Your task to perform on an android device: Show me productivity apps on the Play Store Image 0: 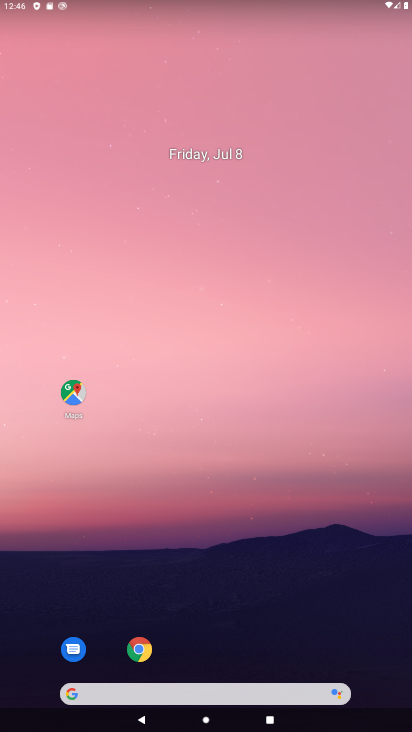
Step 0: drag from (14, 716) to (270, 139)
Your task to perform on an android device: Show me productivity apps on the Play Store Image 1: 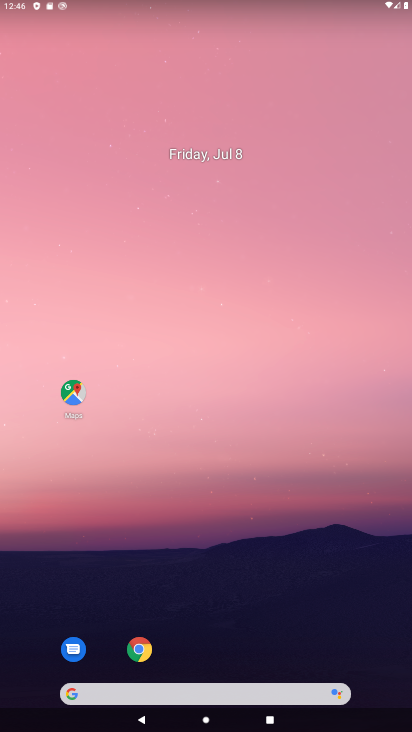
Step 1: drag from (26, 711) to (361, 132)
Your task to perform on an android device: Show me productivity apps on the Play Store Image 2: 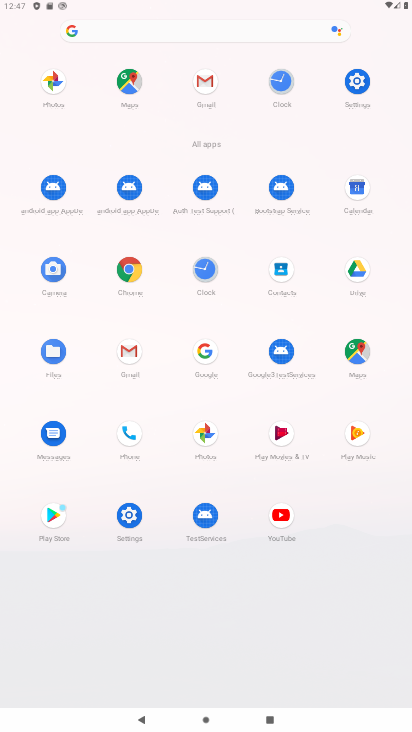
Step 2: click (47, 524)
Your task to perform on an android device: Show me productivity apps on the Play Store Image 3: 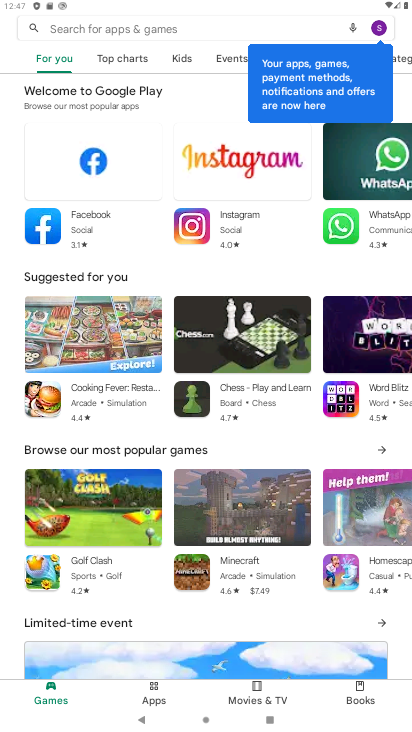
Step 3: click (70, 26)
Your task to perform on an android device: Show me productivity apps on the Play Store Image 4: 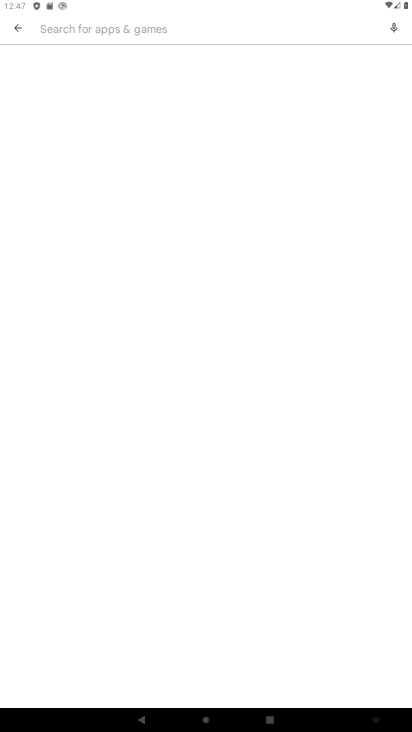
Step 4: click (15, 23)
Your task to perform on an android device: Show me productivity apps on the Play Store Image 5: 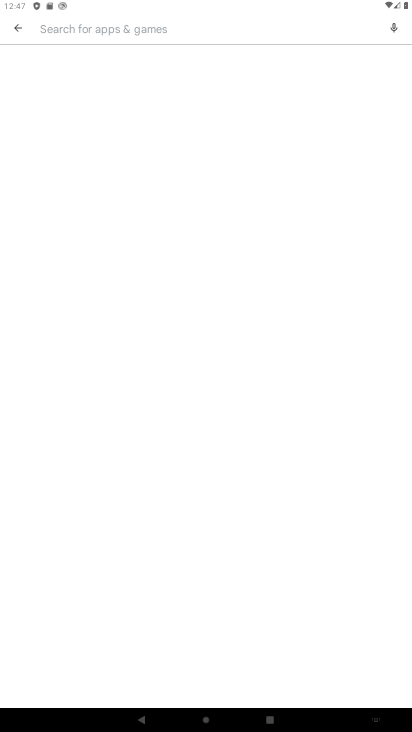
Step 5: click (18, 30)
Your task to perform on an android device: Show me productivity apps on the Play Store Image 6: 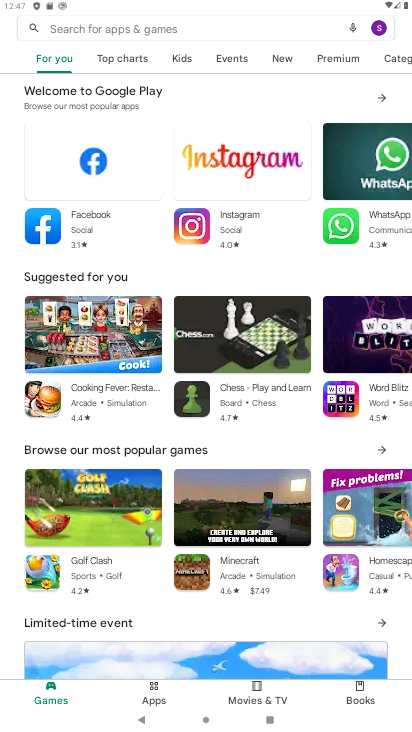
Step 6: click (123, 24)
Your task to perform on an android device: Show me productivity apps on the Play Store Image 7: 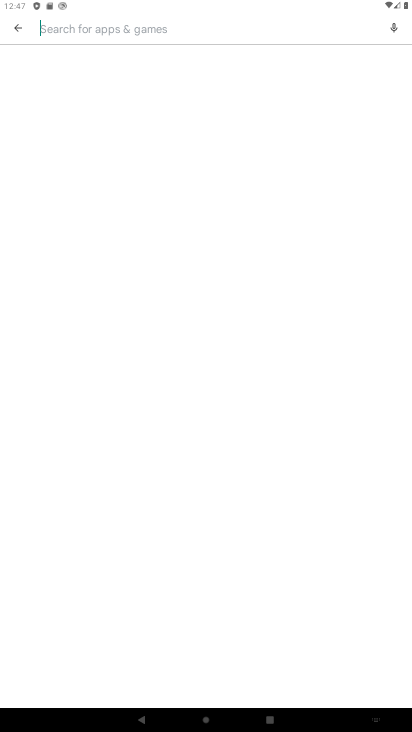
Step 7: type "productivity apps"
Your task to perform on an android device: Show me productivity apps on the Play Store Image 8: 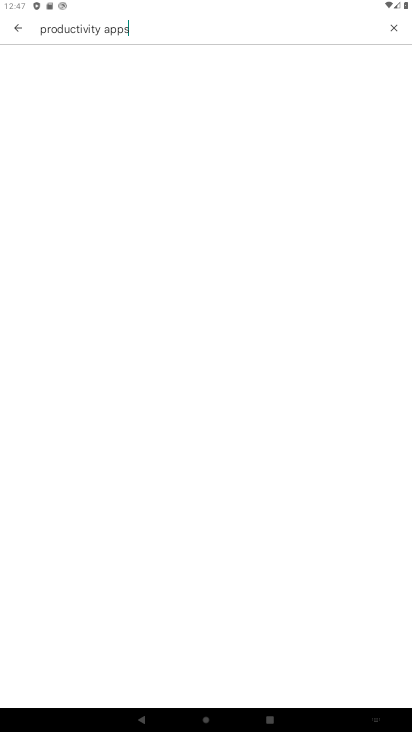
Step 8: type ""
Your task to perform on an android device: Show me productivity apps on the Play Store Image 9: 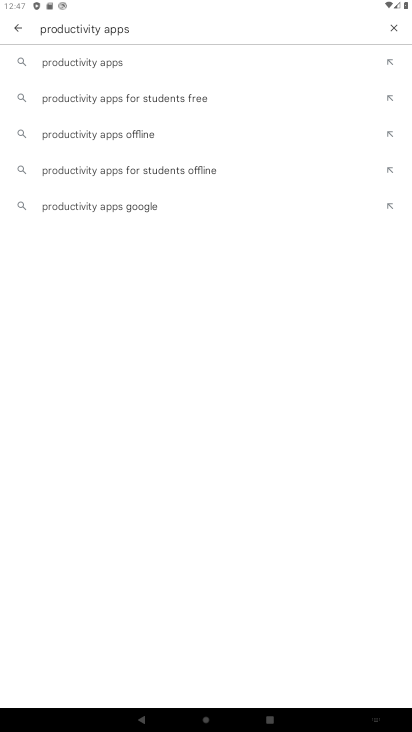
Step 9: click (107, 61)
Your task to perform on an android device: Show me productivity apps on the Play Store Image 10: 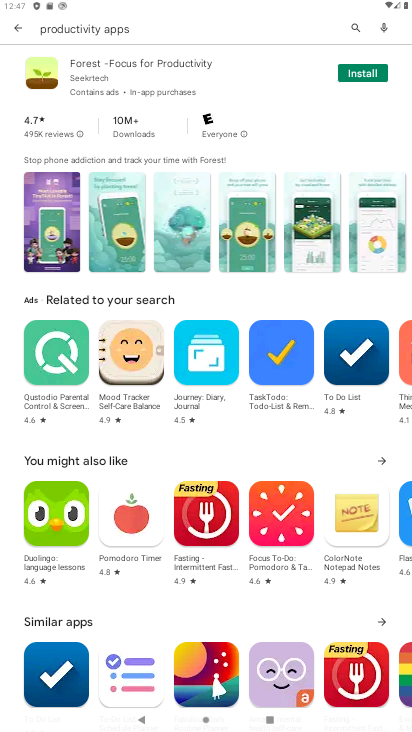
Step 10: task complete